Your task to perform on an android device: turn off notifications in google photos Image 0: 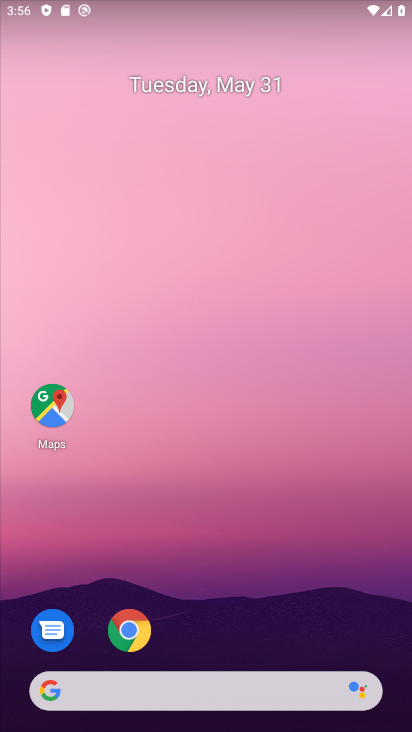
Step 0: drag from (286, 609) to (173, 23)
Your task to perform on an android device: turn off notifications in google photos Image 1: 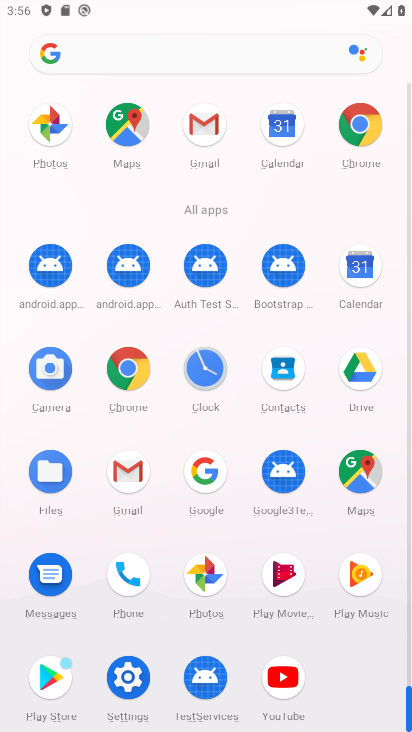
Step 1: drag from (16, 532) to (41, 174)
Your task to perform on an android device: turn off notifications in google photos Image 2: 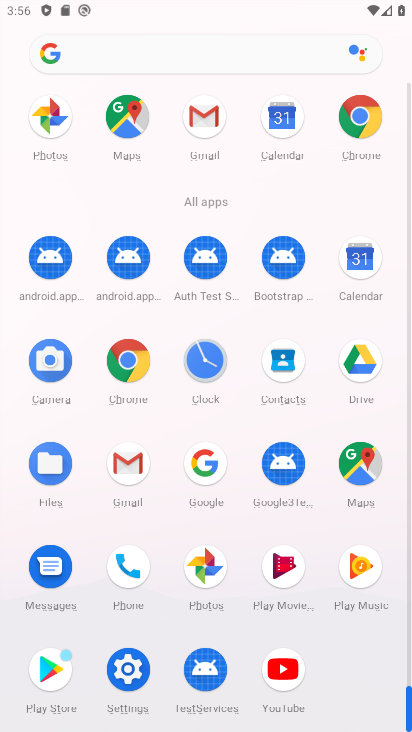
Step 2: click (204, 563)
Your task to perform on an android device: turn off notifications in google photos Image 3: 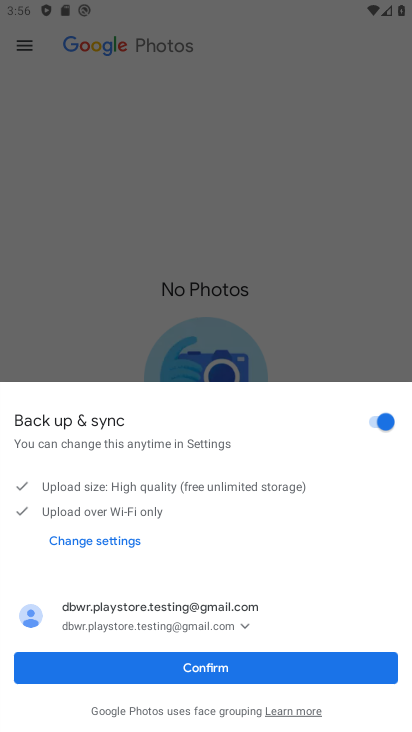
Step 3: click (215, 676)
Your task to perform on an android device: turn off notifications in google photos Image 4: 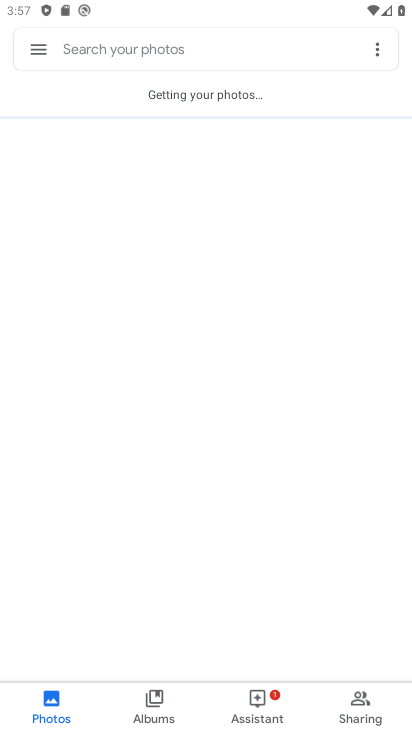
Step 4: click (51, 51)
Your task to perform on an android device: turn off notifications in google photos Image 5: 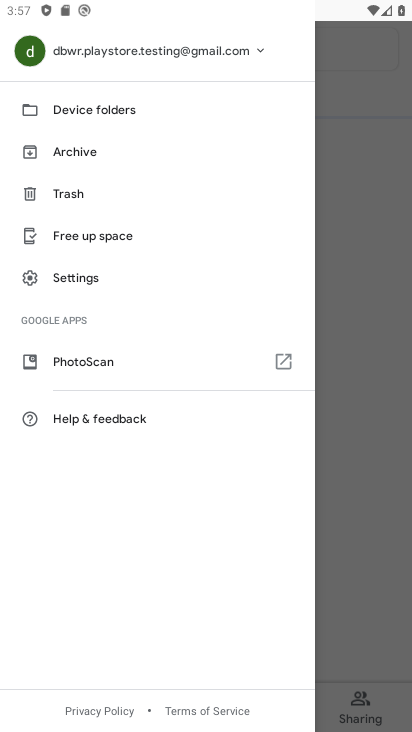
Step 5: click (85, 279)
Your task to perform on an android device: turn off notifications in google photos Image 6: 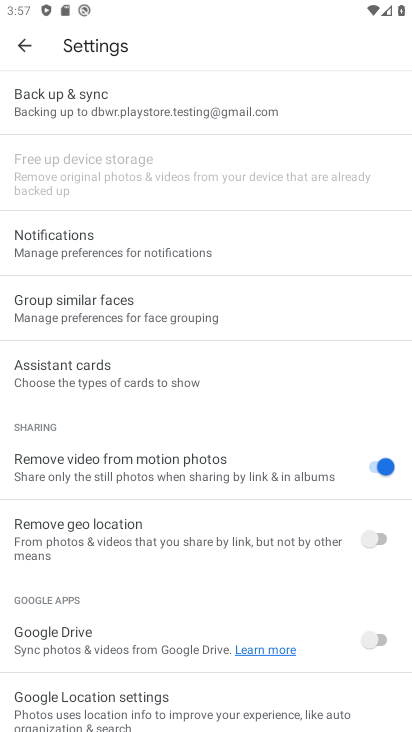
Step 6: click (118, 239)
Your task to perform on an android device: turn off notifications in google photos Image 7: 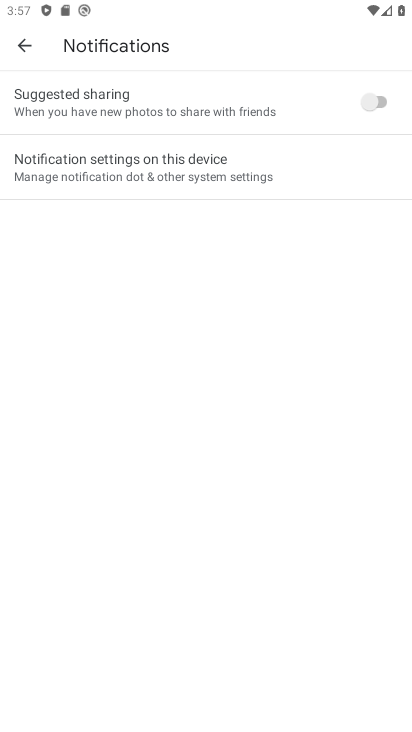
Step 7: click (173, 174)
Your task to perform on an android device: turn off notifications in google photos Image 8: 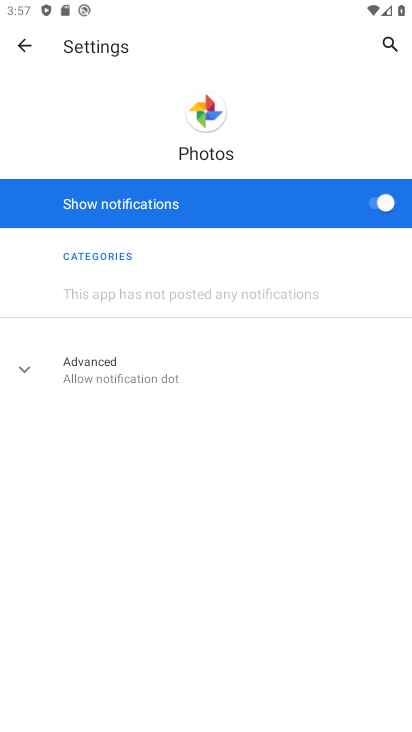
Step 8: click (378, 206)
Your task to perform on an android device: turn off notifications in google photos Image 9: 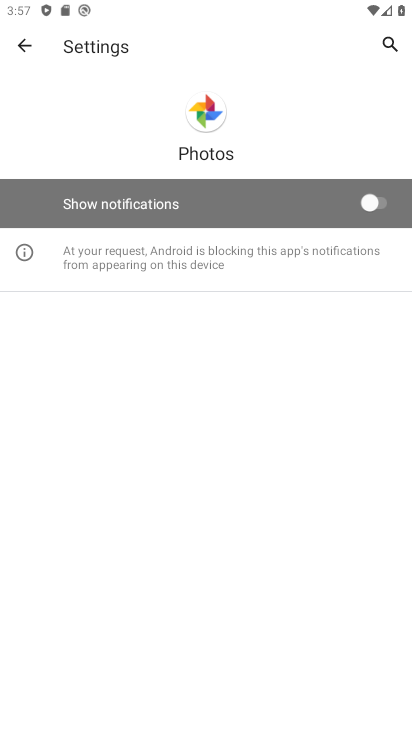
Step 9: task complete